Your task to perform on an android device: Open notification settings Image 0: 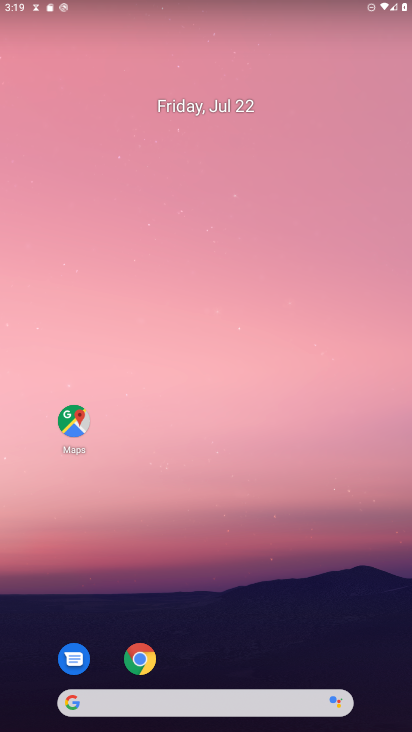
Step 0: drag from (252, 685) to (188, 0)
Your task to perform on an android device: Open notification settings Image 1: 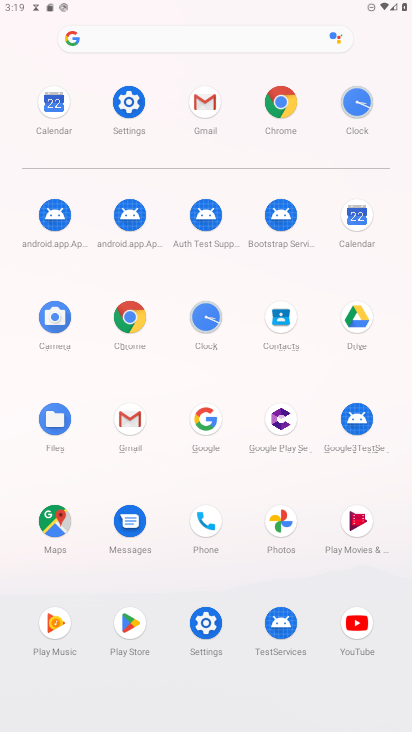
Step 1: click (120, 112)
Your task to perform on an android device: Open notification settings Image 2: 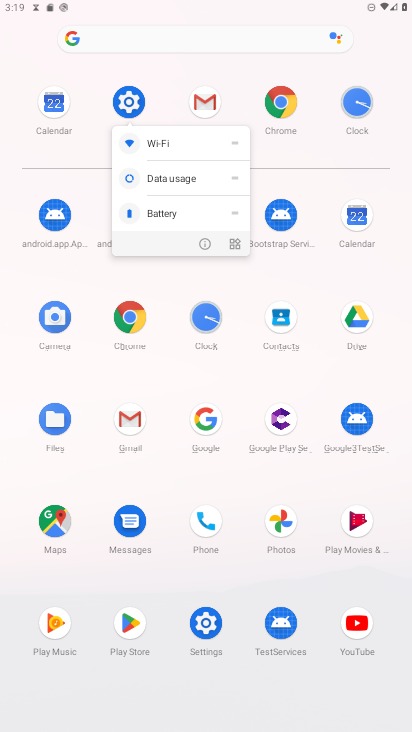
Step 2: click (122, 104)
Your task to perform on an android device: Open notification settings Image 3: 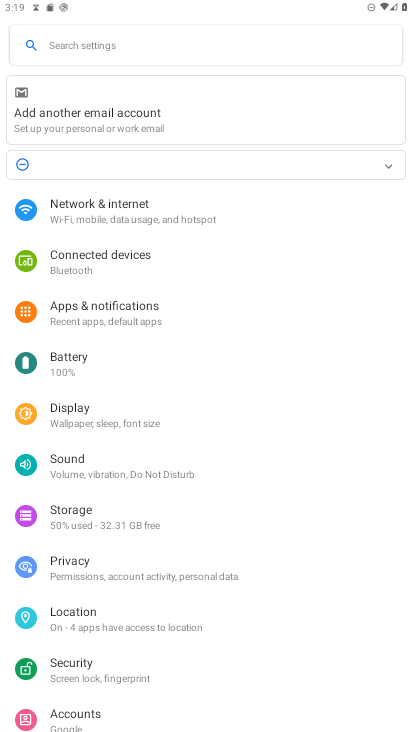
Step 3: click (130, 309)
Your task to perform on an android device: Open notification settings Image 4: 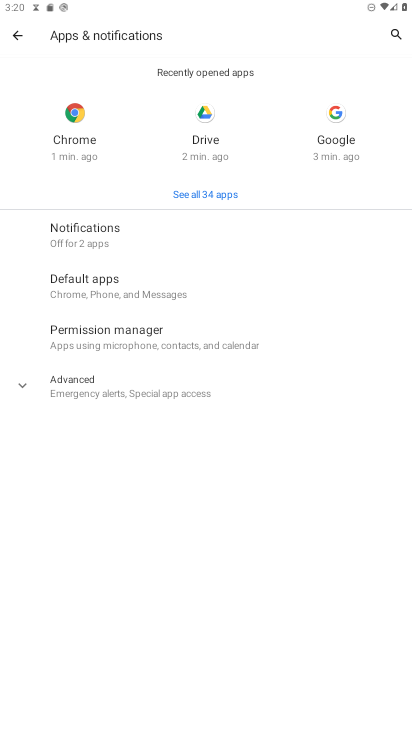
Step 4: click (100, 246)
Your task to perform on an android device: Open notification settings Image 5: 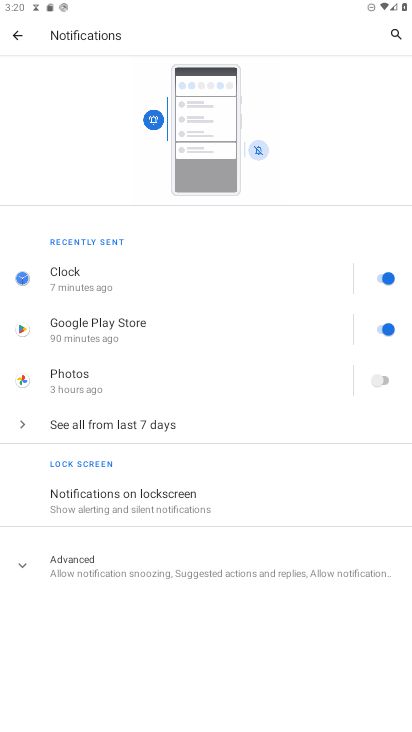
Step 5: click (89, 556)
Your task to perform on an android device: Open notification settings Image 6: 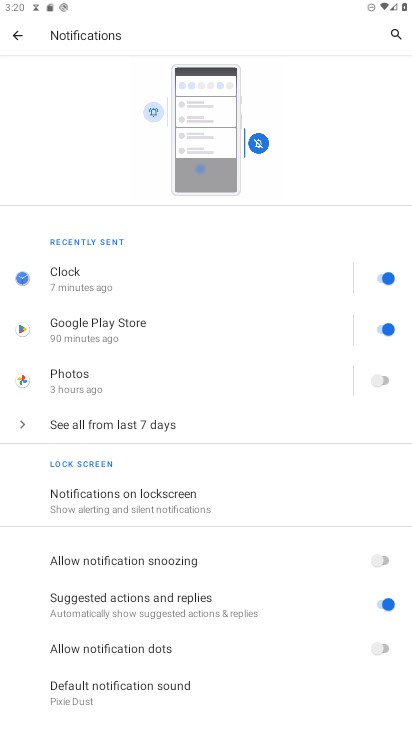
Step 6: task complete